Your task to perform on an android device: Open Reddit.com Image 0: 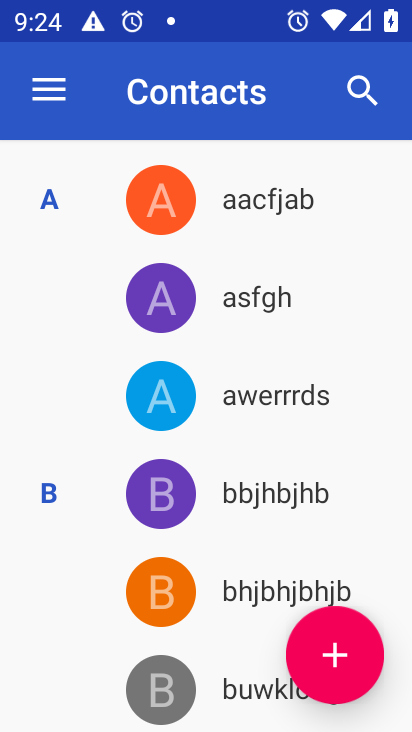
Step 0: press home button
Your task to perform on an android device: Open Reddit.com Image 1: 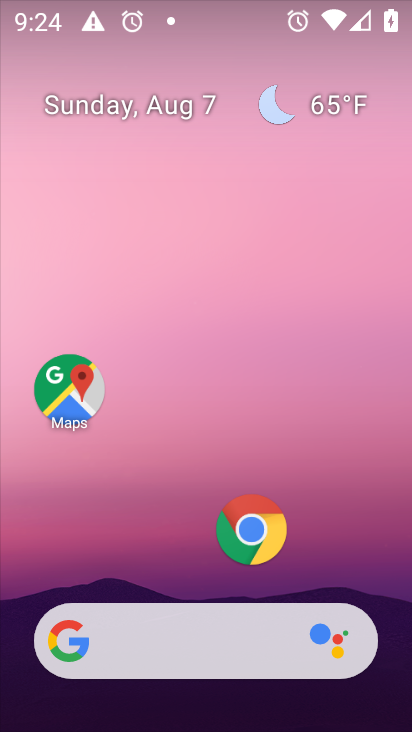
Step 1: click (243, 548)
Your task to perform on an android device: Open Reddit.com Image 2: 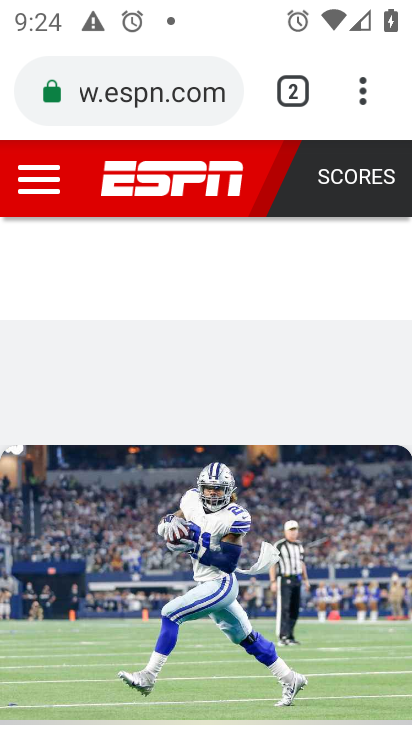
Step 2: click (136, 89)
Your task to perform on an android device: Open Reddit.com Image 3: 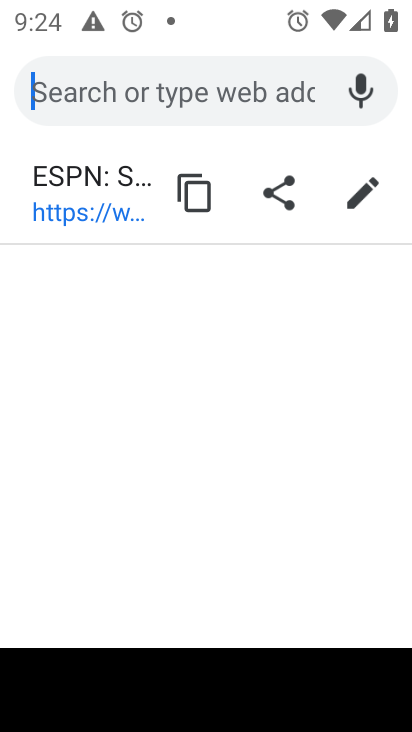
Step 3: type "Reddit.com"
Your task to perform on an android device: Open Reddit.com Image 4: 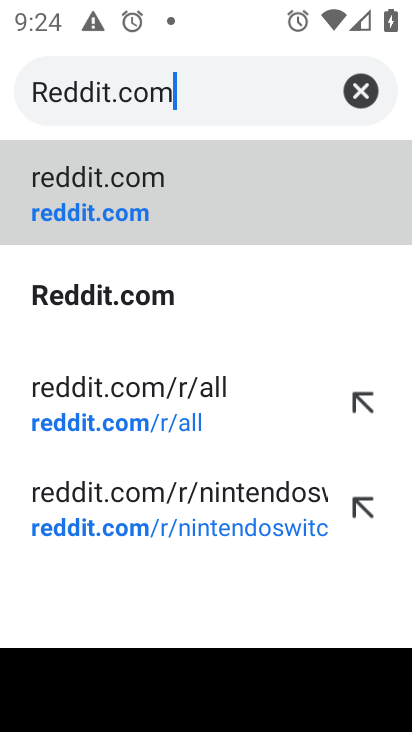
Step 4: click (139, 215)
Your task to perform on an android device: Open Reddit.com Image 5: 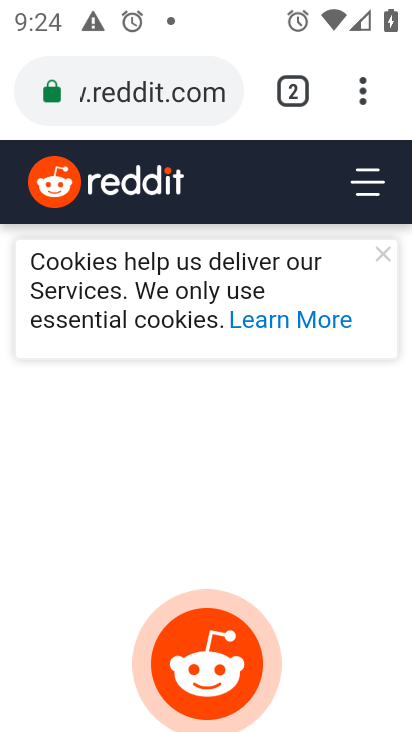
Step 5: task complete